Your task to perform on an android device: turn off wifi Image 0: 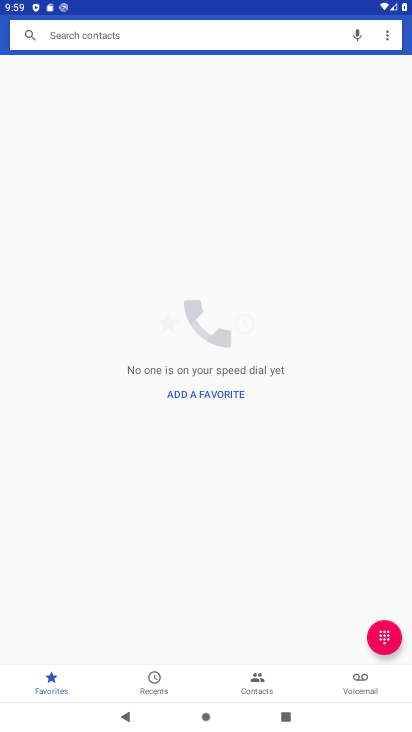
Step 0: press home button
Your task to perform on an android device: turn off wifi Image 1: 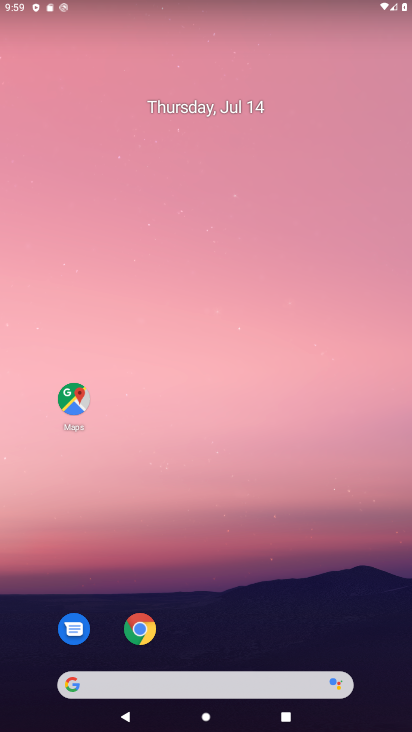
Step 1: drag from (238, 616) to (276, 82)
Your task to perform on an android device: turn off wifi Image 2: 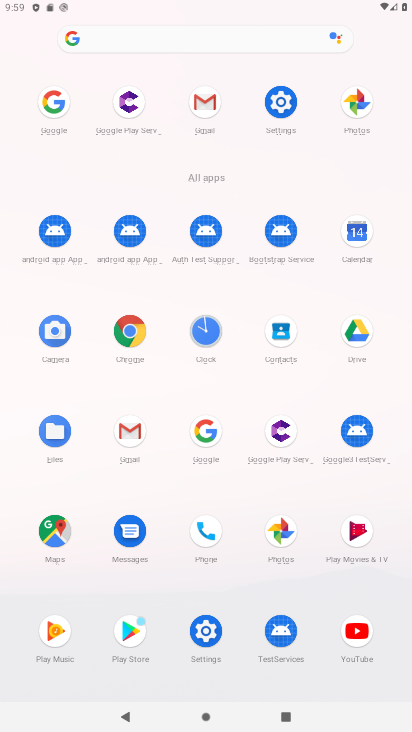
Step 2: click (290, 111)
Your task to perform on an android device: turn off wifi Image 3: 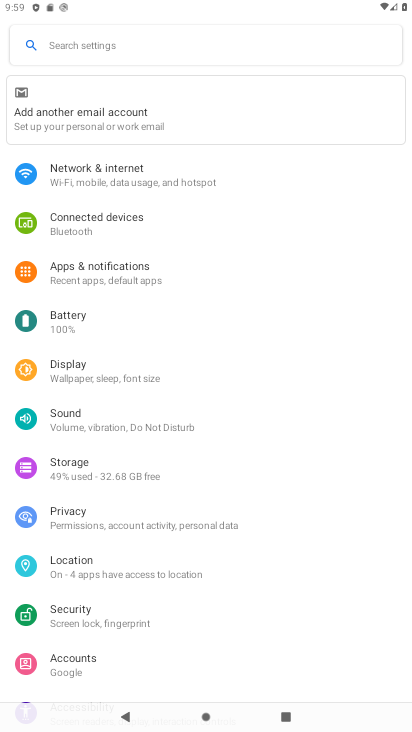
Step 3: click (205, 180)
Your task to perform on an android device: turn off wifi Image 4: 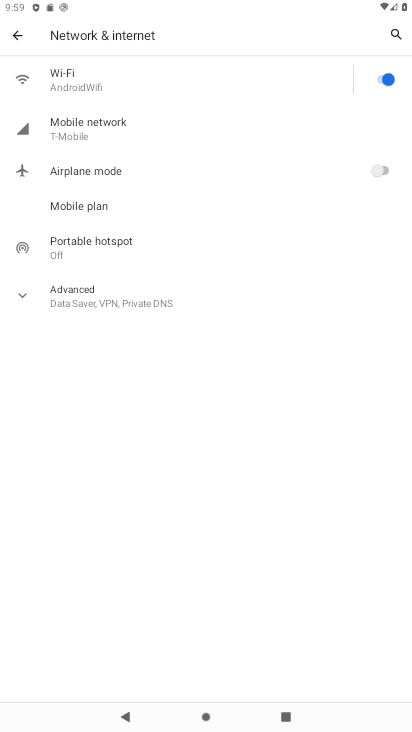
Step 4: click (367, 86)
Your task to perform on an android device: turn off wifi Image 5: 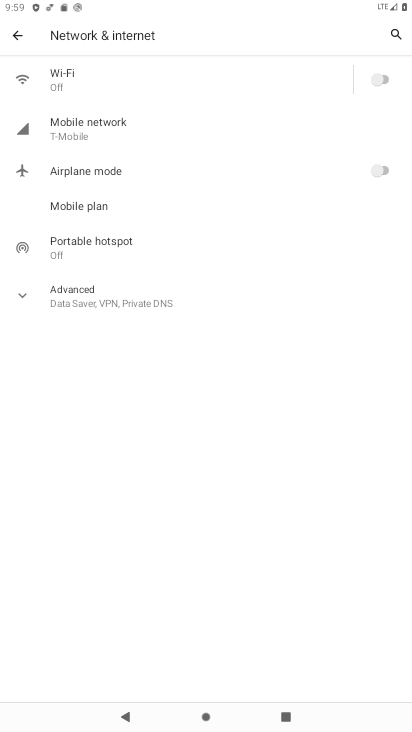
Step 5: task complete